Your task to perform on an android device: Open calendar and show me the second week of next month Image 0: 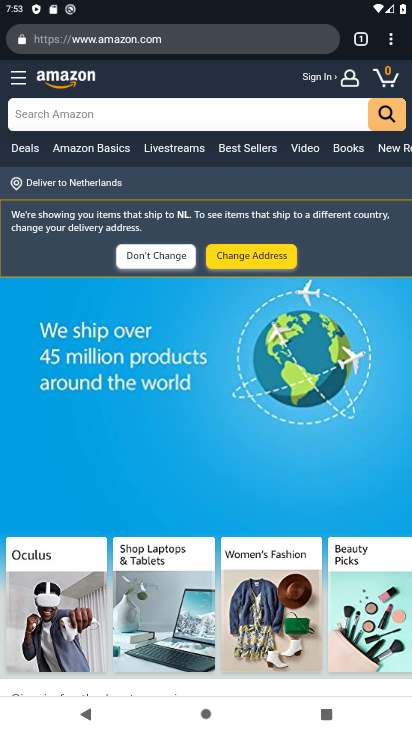
Step 0: press home button
Your task to perform on an android device: Open calendar and show me the second week of next month Image 1: 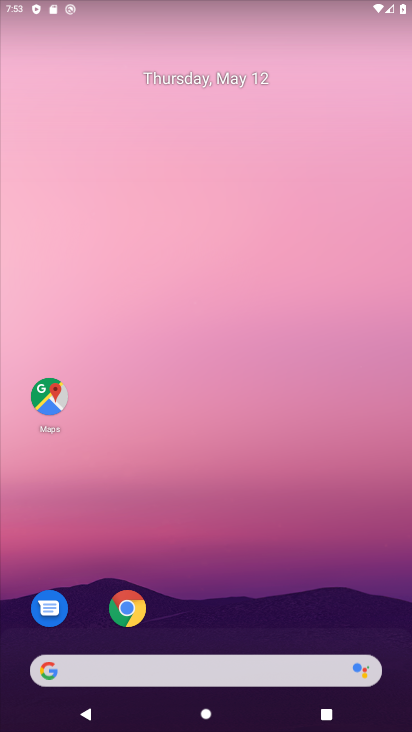
Step 1: drag from (237, 513) to (270, 293)
Your task to perform on an android device: Open calendar and show me the second week of next month Image 2: 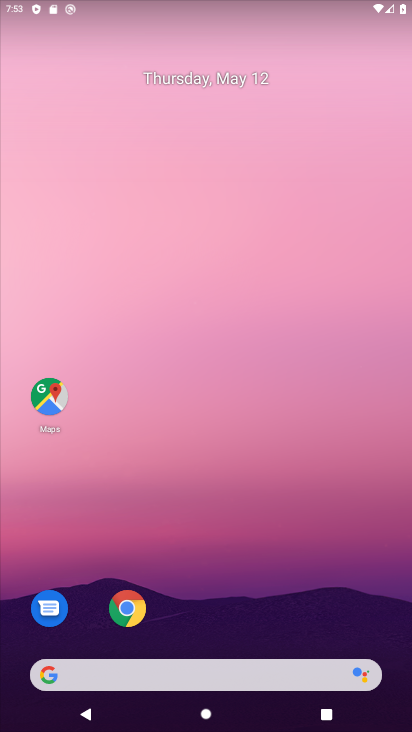
Step 2: drag from (210, 579) to (224, 164)
Your task to perform on an android device: Open calendar and show me the second week of next month Image 3: 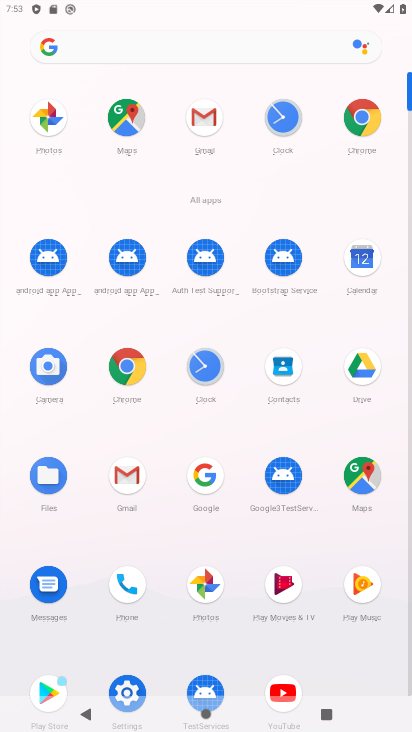
Step 3: click (360, 266)
Your task to perform on an android device: Open calendar and show me the second week of next month Image 4: 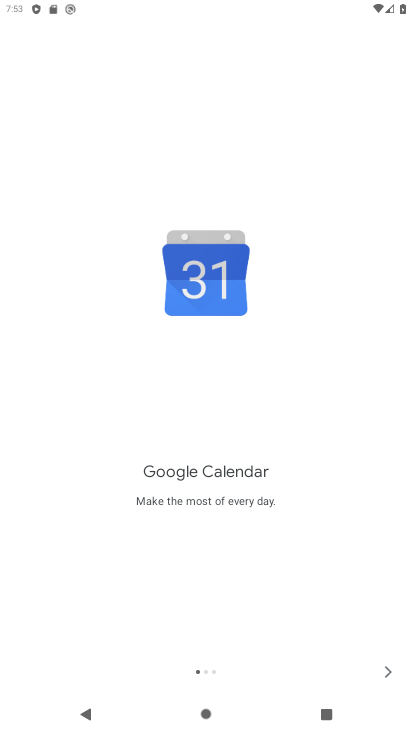
Step 4: click (383, 666)
Your task to perform on an android device: Open calendar and show me the second week of next month Image 5: 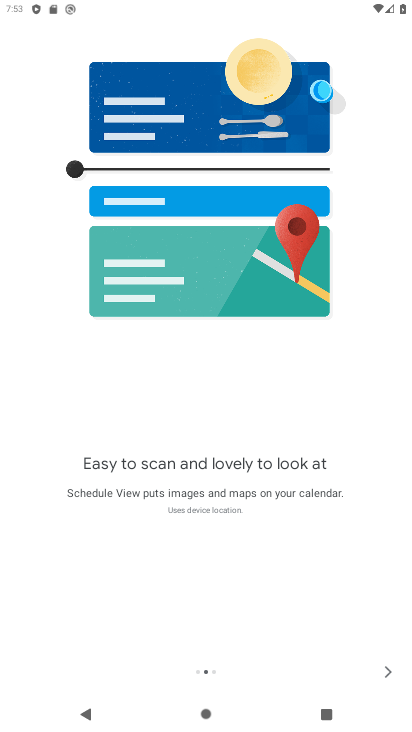
Step 5: click (381, 676)
Your task to perform on an android device: Open calendar and show me the second week of next month Image 6: 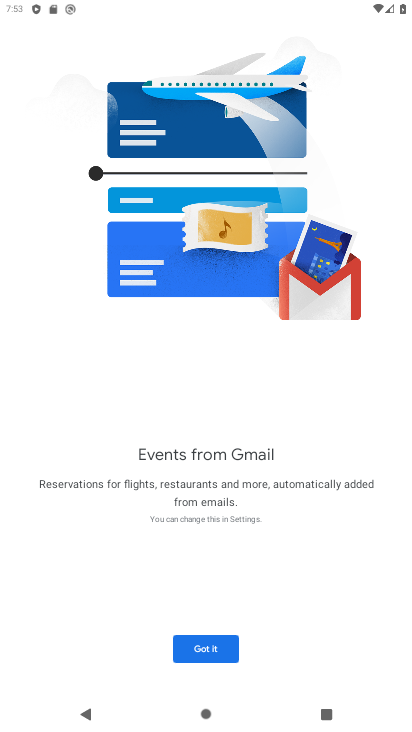
Step 6: click (195, 653)
Your task to perform on an android device: Open calendar and show me the second week of next month Image 7: 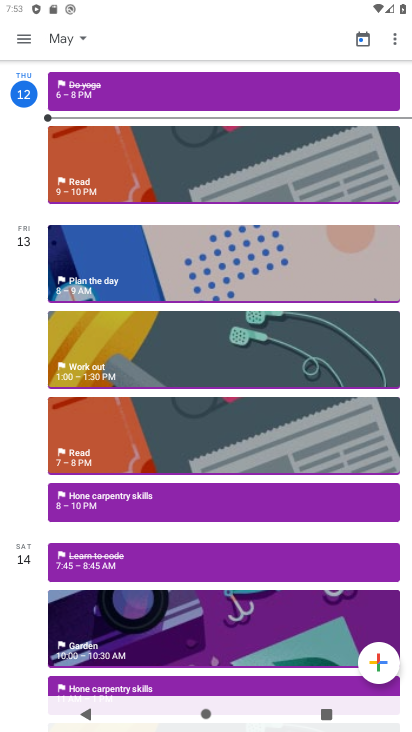
Step 7: press home button
Your task to perform on an android device: Open calendar and show me the second week of next month Image 8: 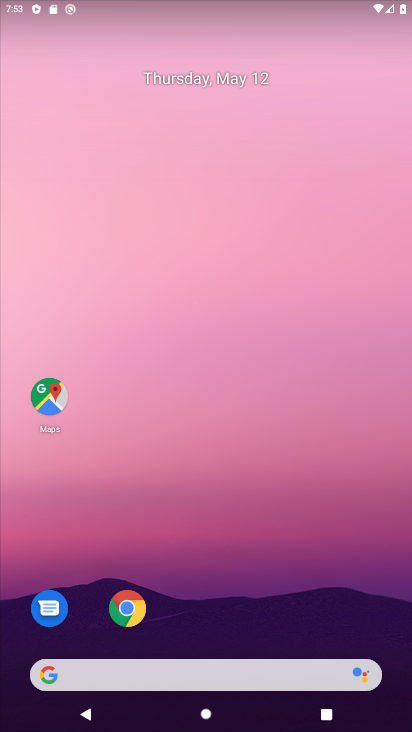
Step 8: drag from (254, 625) to (201, 29)
Your task to perform on an android device: Open calendar and show me the second week of next month Image 9: 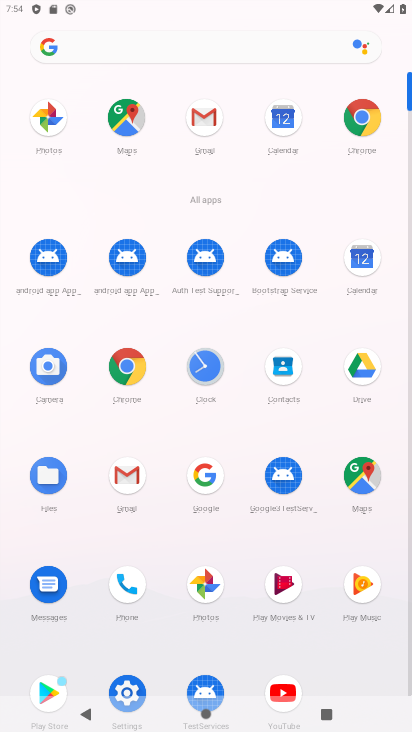
Step 9: drag from (255, 551) to (275, 29)
Your task to perform on an android device: Open calendar and show me the second week of next month Image 10: 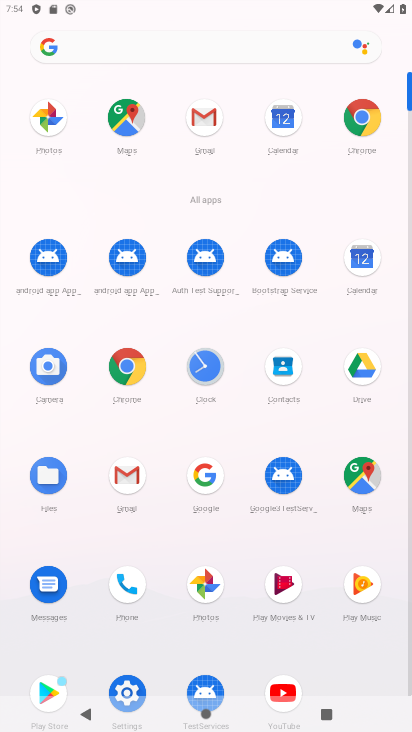
Step 10: click (279, 125)
Your task to perform on an android device: Open calendar and show me the second week of next month Image 11: 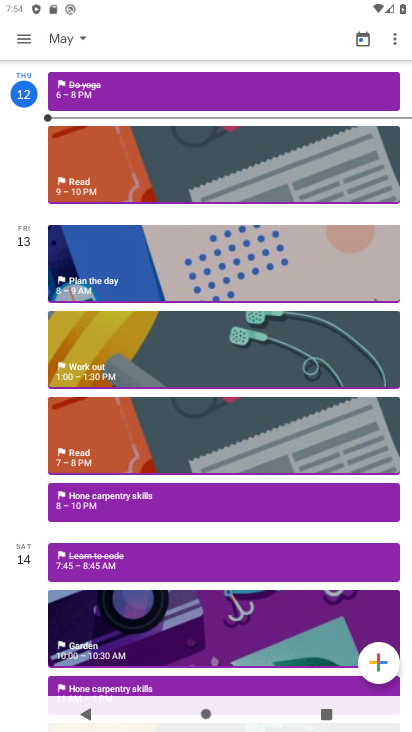
Step 11: click (64, 44)
Your task to perform on an android device: Open calendar and show me the second week of next month Image 12: 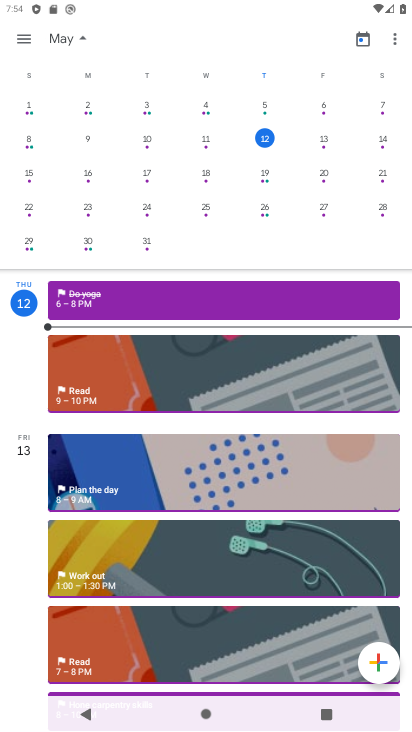
Step 12: click (28, 41)
Your task to perform on an android device: Open calendar and show me the second week of next month Image 13: 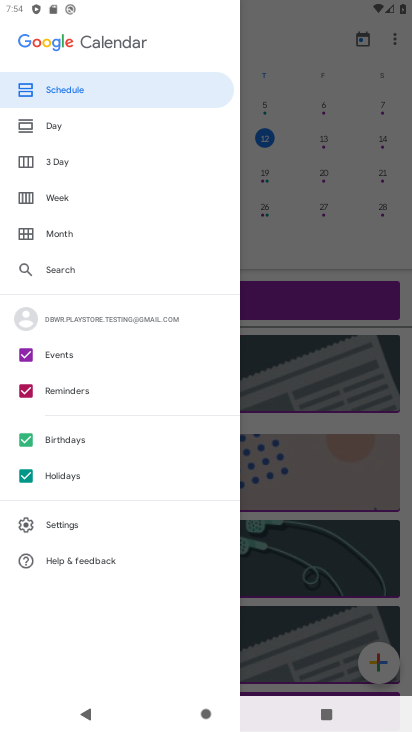
Step 13: click (74, 192)
Your task to perform on an android device: Open calendar and show me the second week of next month Image 14: 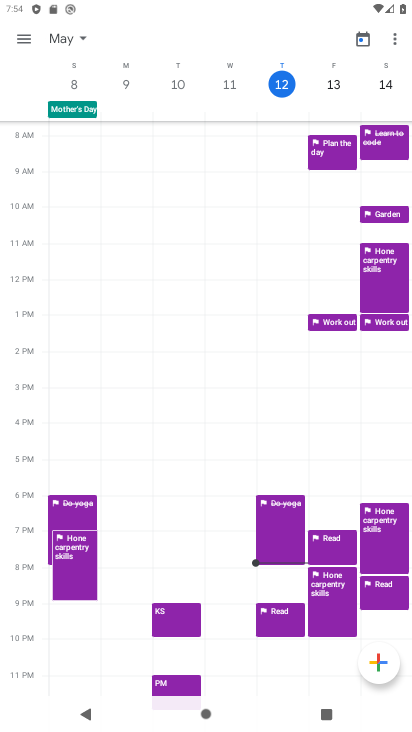
Step 14: click (77, 41)
Your task to perform on an android device: Open calendar and show me the second week of next month Image 15: 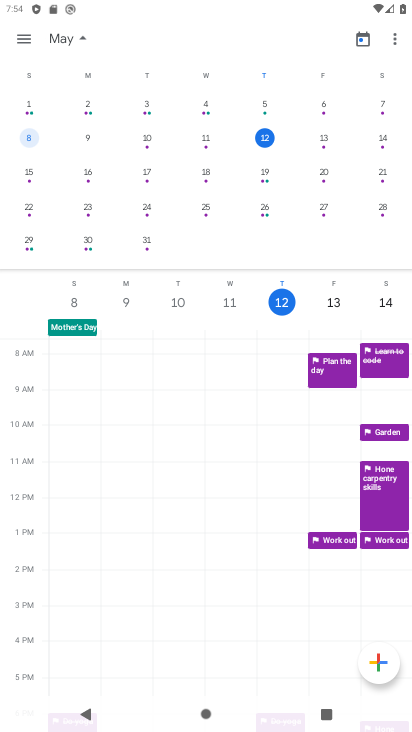
Step 15: drag from (218, 188) to (12, 151)
Your task to perform on an android device: Open calendar and show me the second week of next month Image 16: 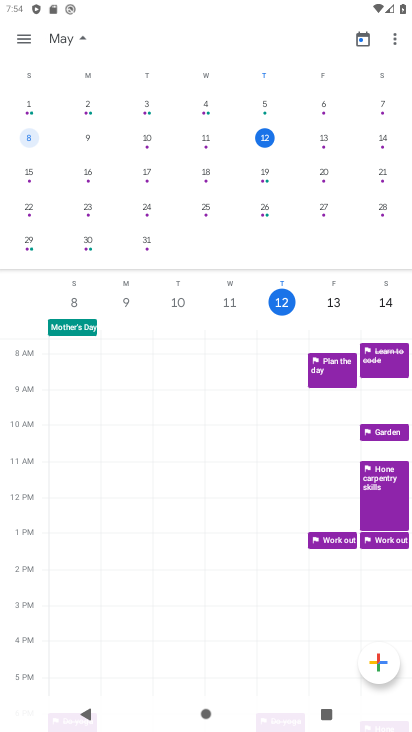
Step 16: drag from (238, 163) to (14, 137)
Your task to perform on an android device: Open calendar and show me the second week of next month Image 17: 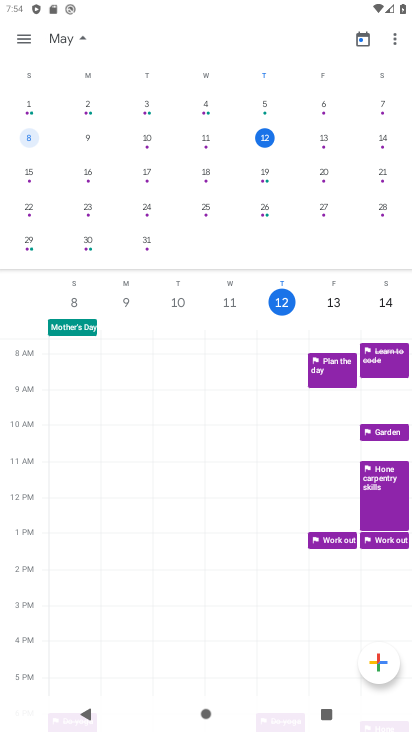
Step 17: drag from (335, 149) to (15, 150)
Your task to perform on an android device: Open calendar and show me the second week of next month Image 18: 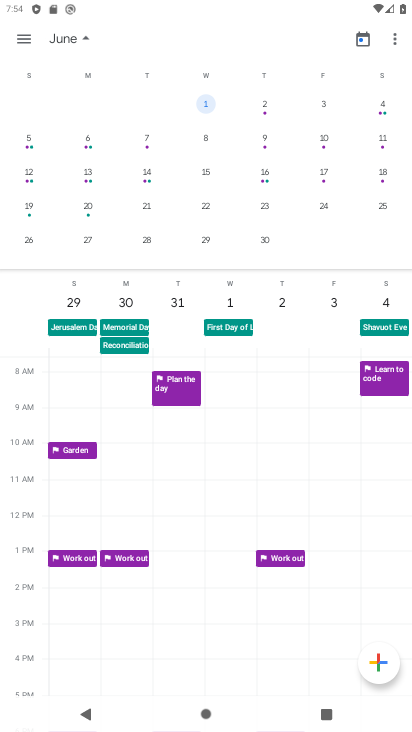
Step 18: click (33, 148)
Your task to perform on an android device: Open calendar and show me the second week of next month Image 19: 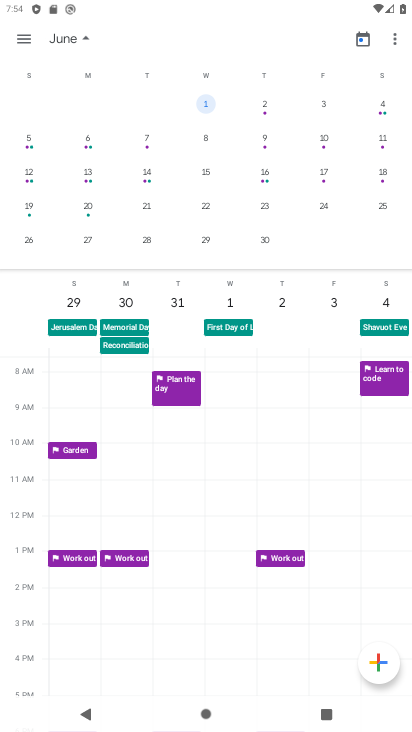
Step 19: click (31, 137)
Your task to perform on an android device: Open calendar and show me the second week of next month Image 20: 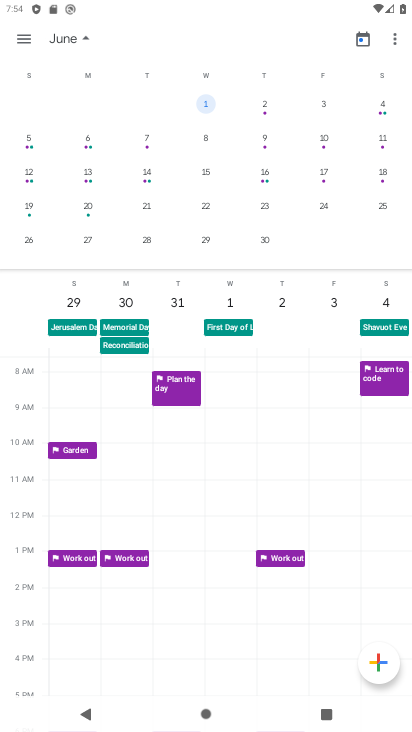
Step 20: click (31, 137)
Your task to perform on an android device: Open calendar and show me the second week of next month Image 21: 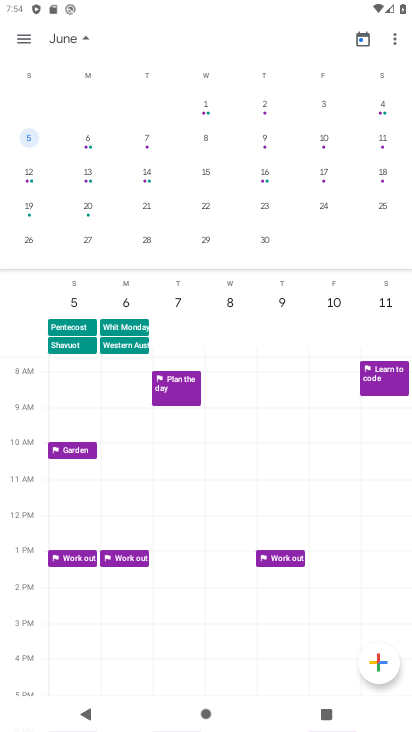
Step 21: task complete